Your task to perform on an android device: Check the weather Image 0: 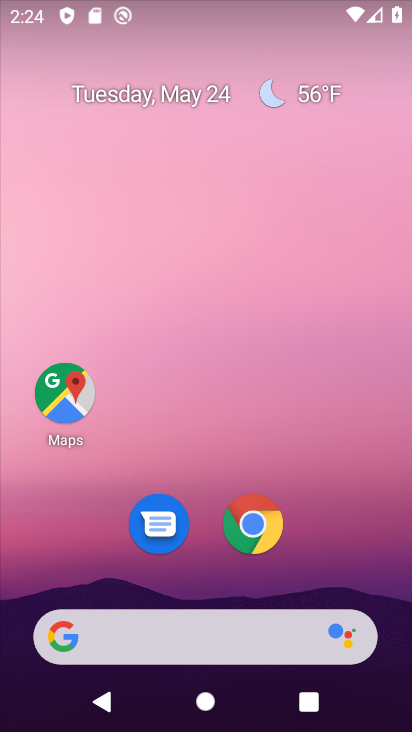
Step 0: click (320, 99)
Your task to perform on an android device: Check the weather Image 1: 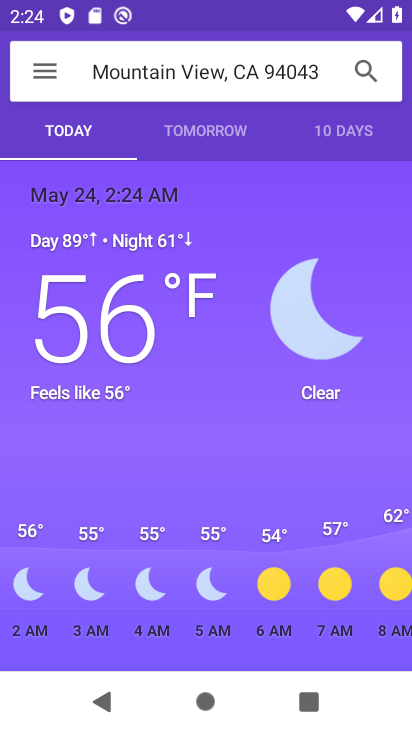
Step 1: task complete